Your task to perform on an android device: Search for seafood restaurants on Google Maps Image 0: 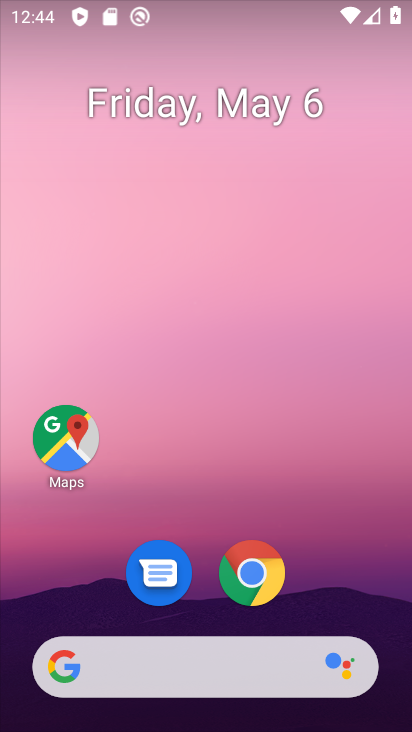
Step 0: click (64, 436)
Your task to perform on an android device: Search for seafood restaurants on Google Maps Image 1: 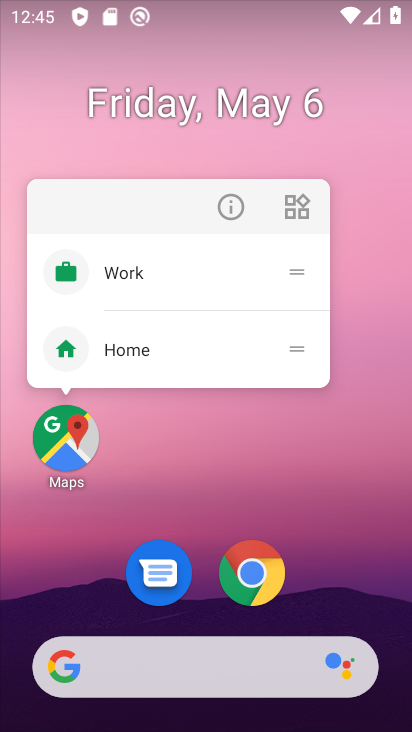
Step 1: click (71, 454)
Your task to perform on an android device: Search for seafood restaurants on Google Maps Image 2: 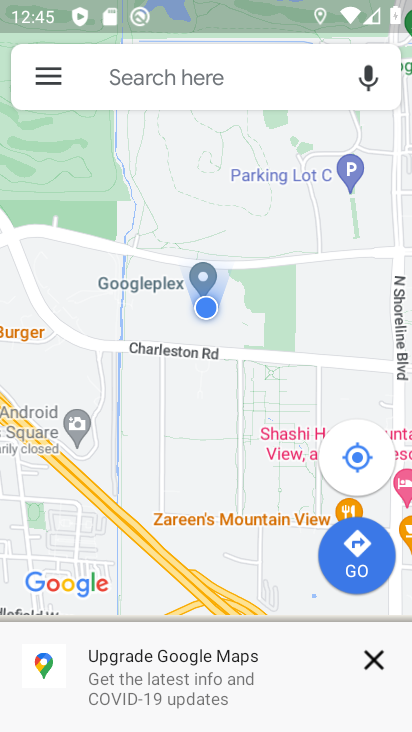
Step 2: click (169, 68)
Your task to perform on an android device: Search for seafood restaurants on Google Maps Image 3: 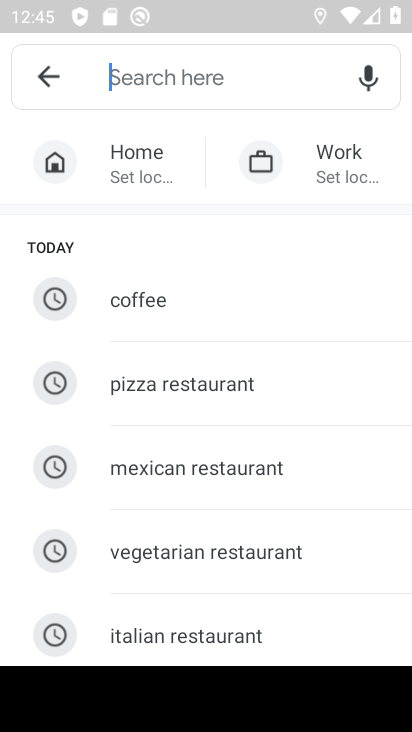
Step 3: drag from (217, 594) to (297, 248)
Your task to perform on an android device: Search for seafood restaurants on Google Maps Image 4: 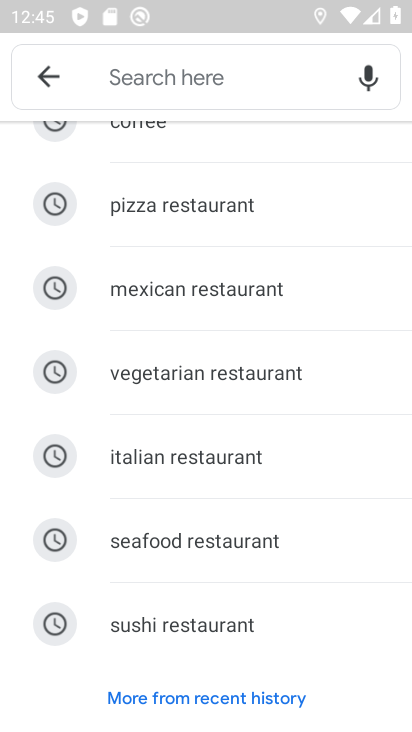
Step 4: click (206, 541)
Your task to perform on an android device: Search for seafood restaurants on Google Maps Image 5: 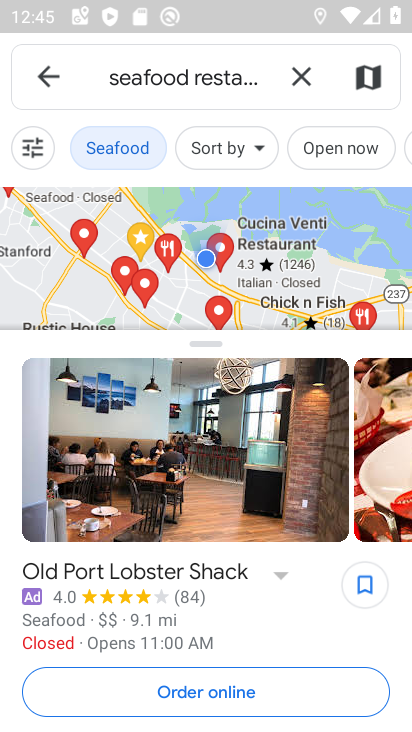
Step 5: task complete